Your task to perform on an android device: Search for sushi restaurants on Maps Image 0: 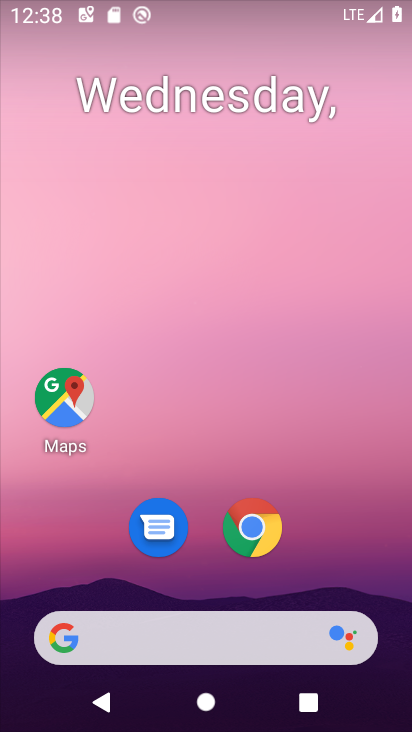
Step 0: drag from (354, 647) to (336, 130)
Your task to perform on an android device: Search for sushi restaurants on Maps Image 1: 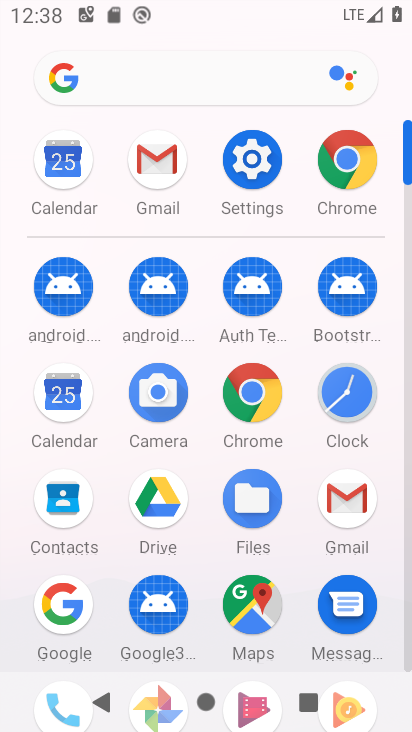
Step 1: click (241, 622)
Your task to perform on an android device: Search for sushi restaurants on Maps Image 2: 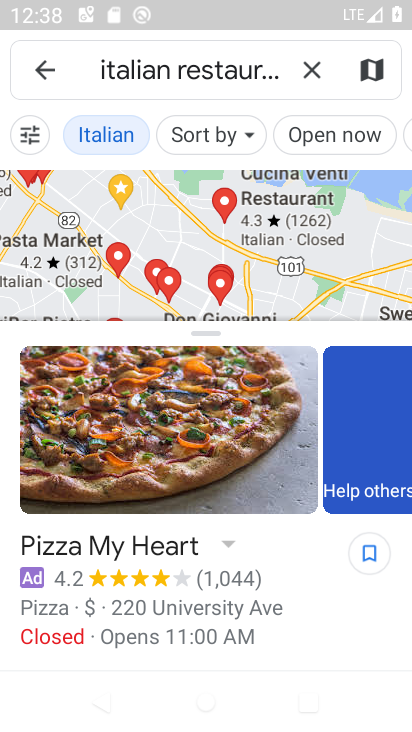
Step 2: click (314, 67)
Your task to perform on an android device: Search for sushi restaurants on Maps Image 3: 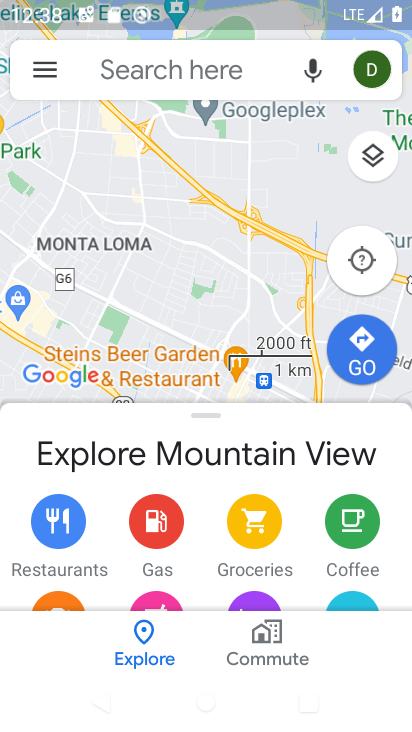
Step 3: click (296, 74)
Your task to perform on an android device: Search for sushi restaurants on Maps Image 4: 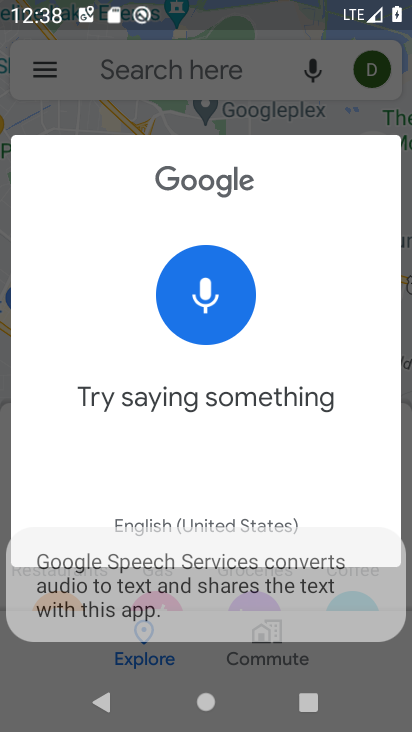
Step 4: drag from (283, 75) to (191, 75)
Your task to perform on an android device: Search for sushi restaurants on Maps Image 5: 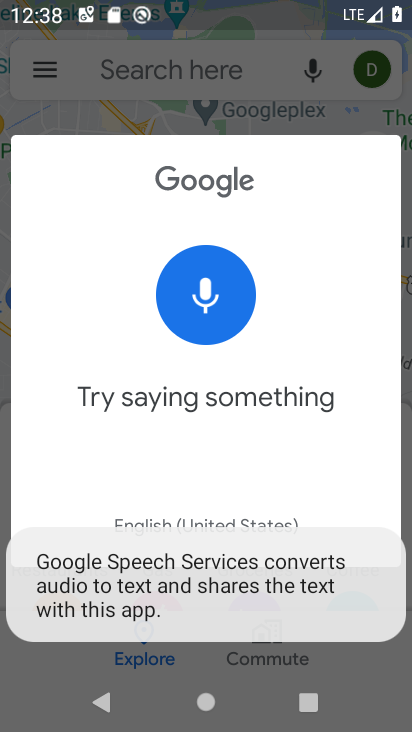
Step 5: drag from (283, 75) to (191, 75)
Your task to perform on an android device: Search for sushi restaurants on Maps Image 6: 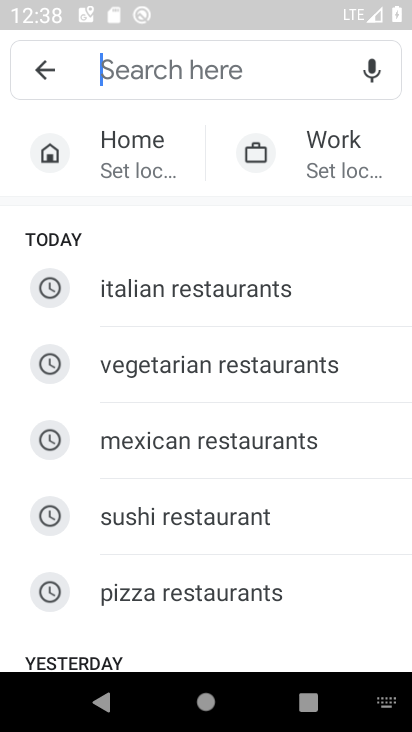
Step 6: click (301, 519)
Your task to perform on an android device: Search for sushi restaurants on Maps Image 7: 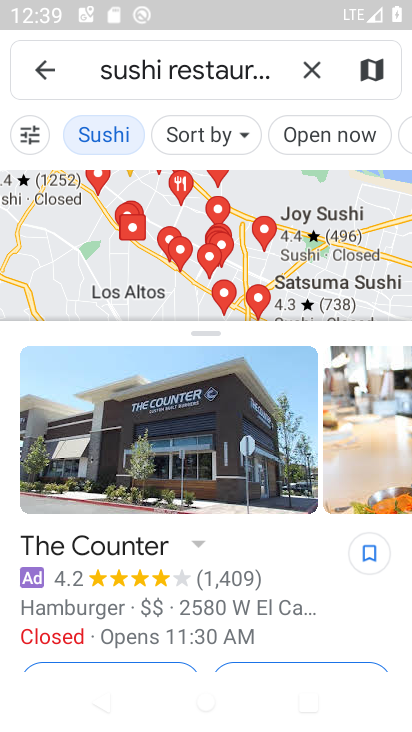
Step 7: task complete